Your task to perform on an android device: Empty the shopping cart on newegg.com. Add "bose soundsport free" to the cart on newegg.com, then select checkout. Image 0: 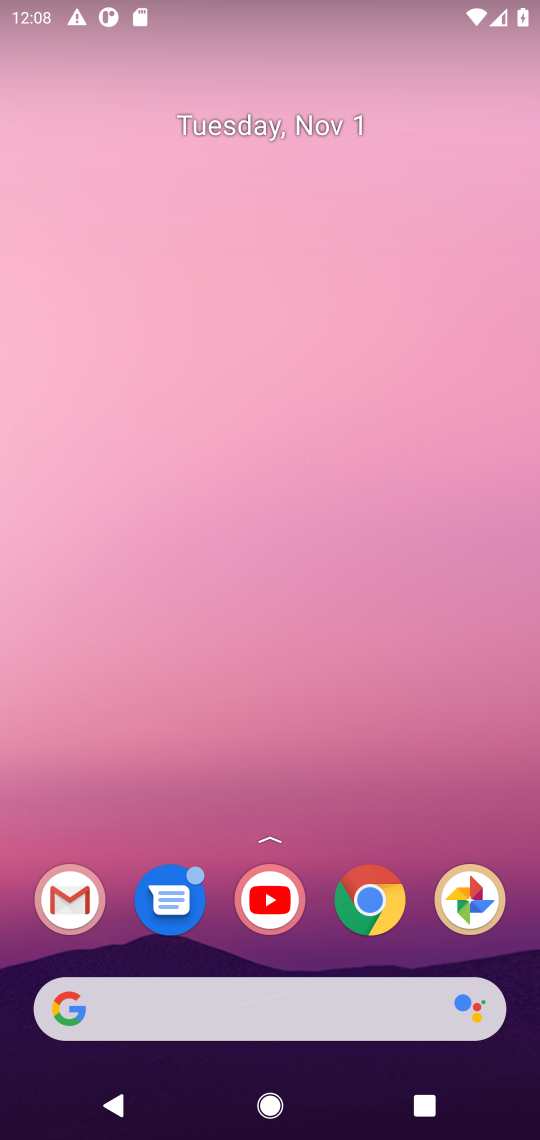
Step 0: click (393, 923)
Your task to perform on an android device: Empty the shopping cart on newegg.com. Add "bose soundsport free" to the cart on newegg.com, then select checkout. Image 1: 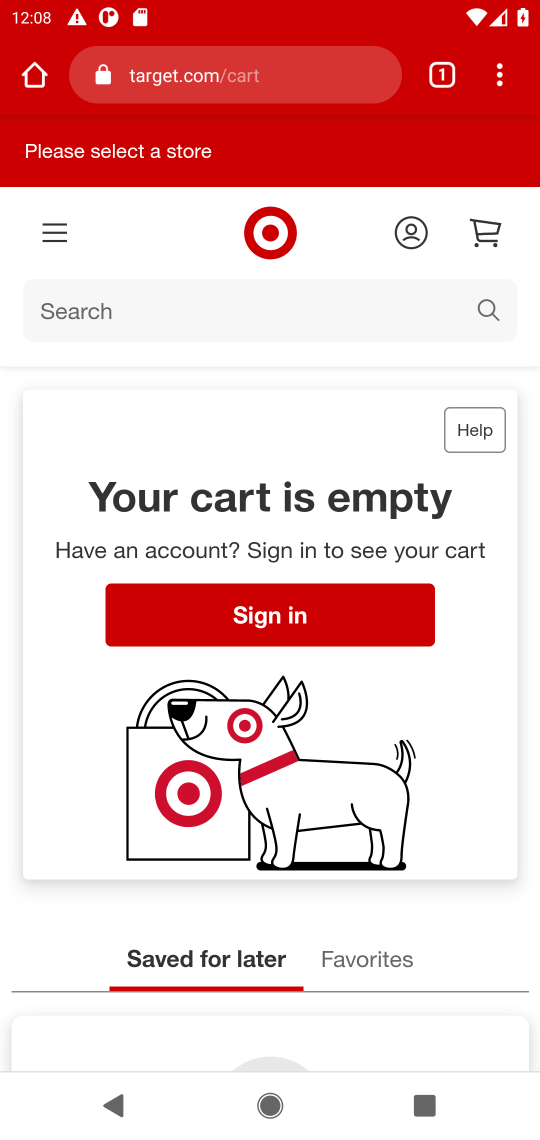
Step 1: type "newegg.com"
Your task to perform on an android device: Empty the shopping cart on newegg.com. Add "bose soundsport free" to the cart on newegg.com, then select checkout. Image 2: 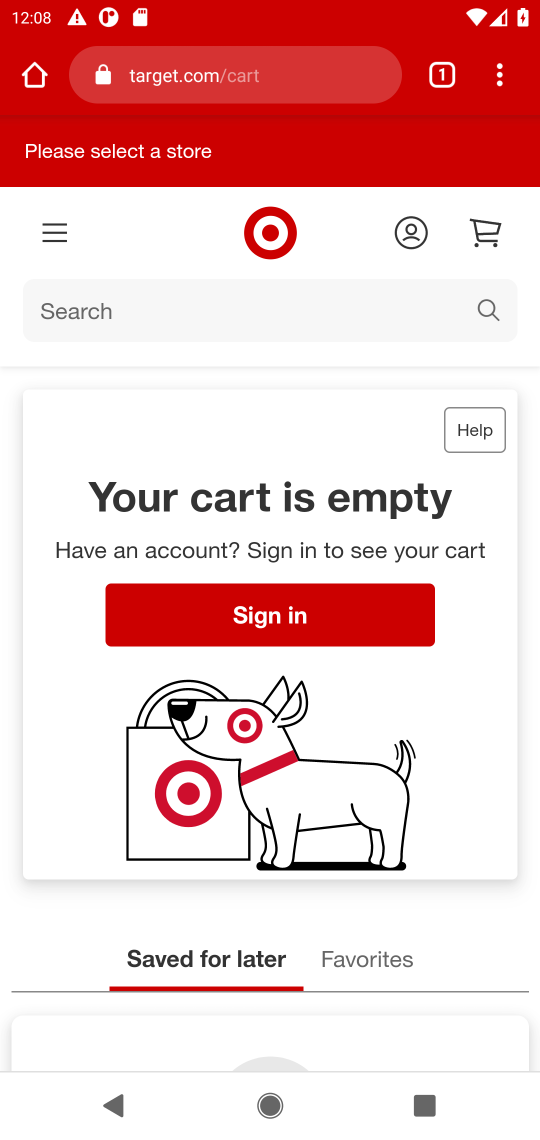
Step 2: type "newegg.com"
Your task to perform on an android device: Empty the shopping cart on newegg.com. Add "bose soundsport free" to the cart on newegg.com, then select checkout. Image 3: 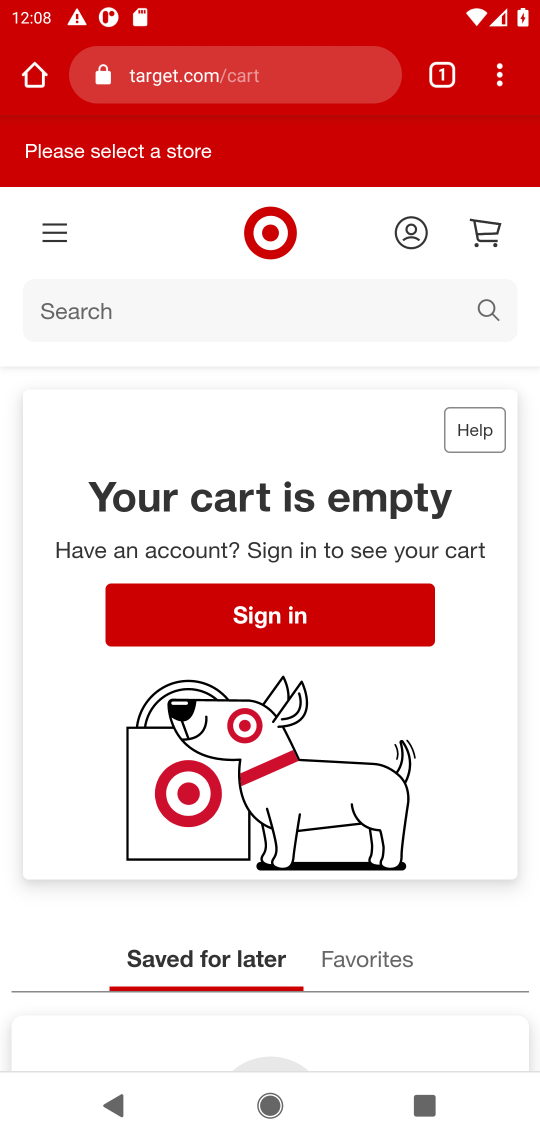
Step 3: click (256, 76)
Your task to perform on an android device: Empty the shopping cart on newegg.com. Add "bose soundsport free" to the cart on newegg.com, then select checkout. Image 4: 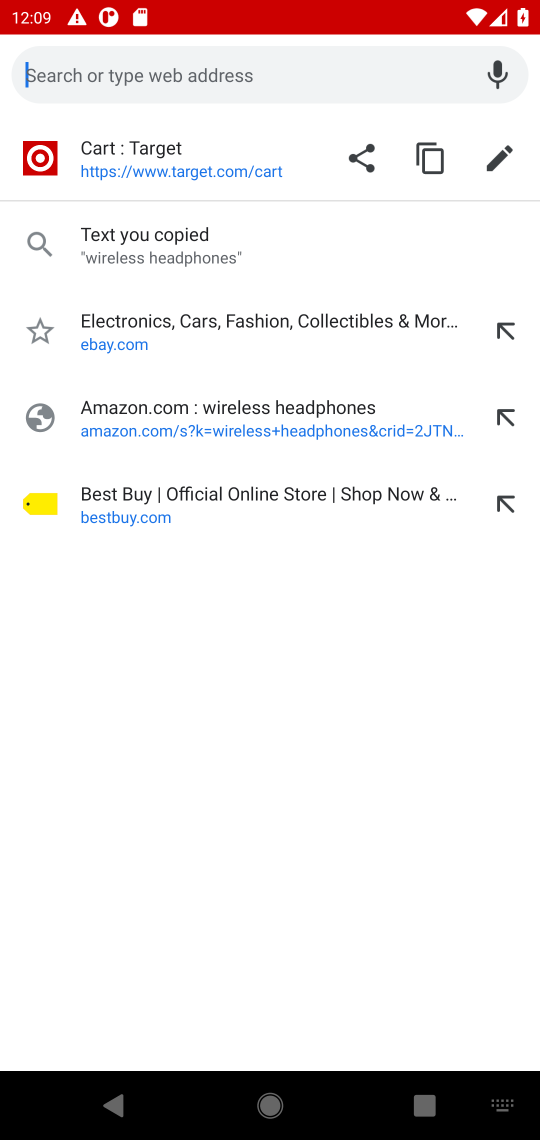
Step 4: type "newegg.com"
Your task to perform on an android device: Empty the shopping cart on newegg.com. Add "bose soundsport free" to the cart on newegg.com, then select checkout. Image 5: 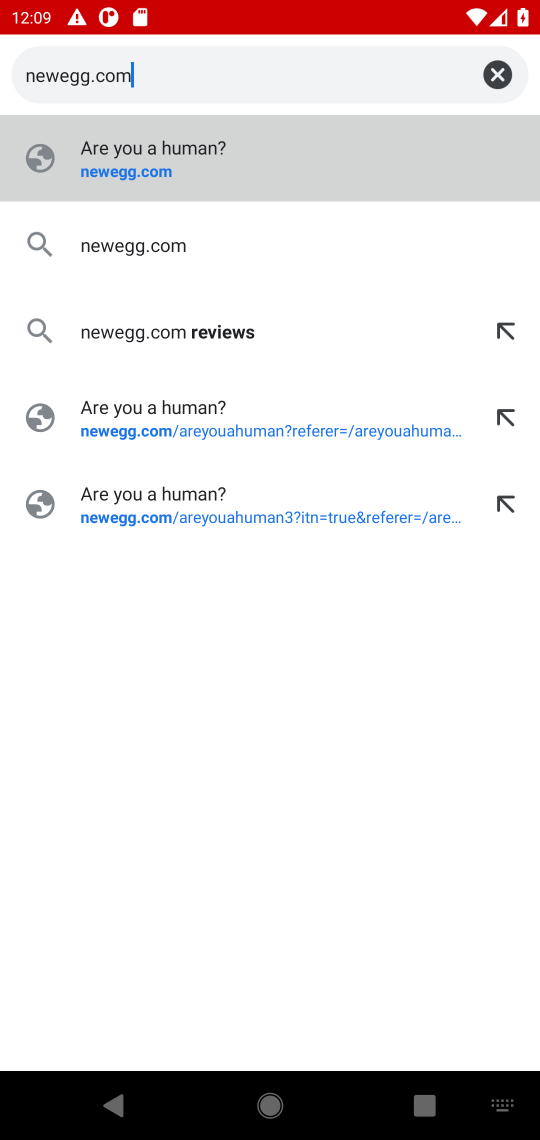
Step 5: press enter
Your task to perform on an android device: Empty the shopping cart on newegg.com. Add "bose soundsport free" to the cart on newegg.com, then select checkout. Image 6: 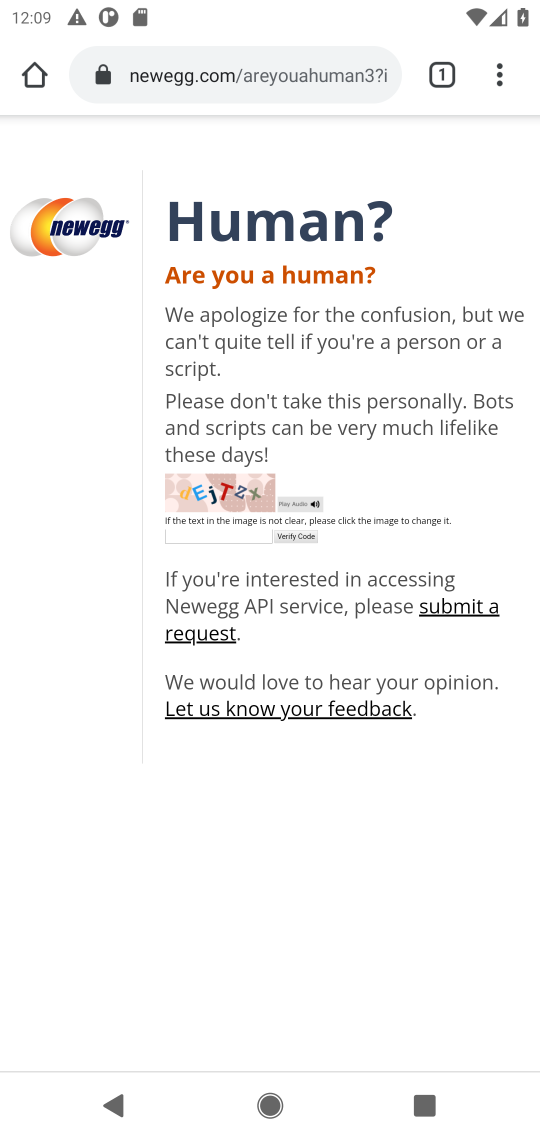
Step 6: click (225, 542)
Your task to perform on an android device: Empty the shopping cart on newegg.com. Add "bose soundsport free" to the cart on newegg.com, then select checkout. Image 7: 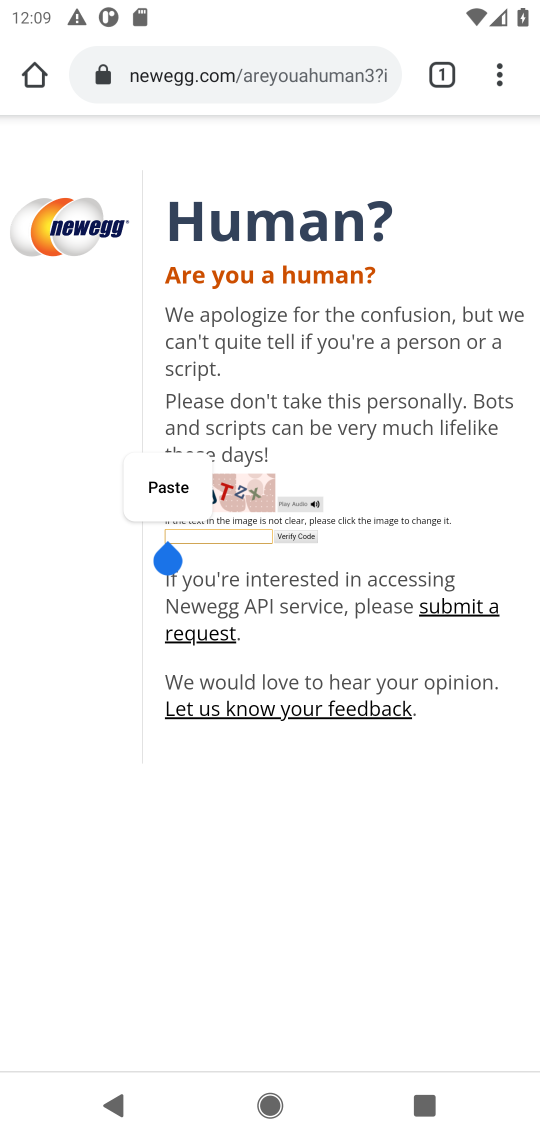
Step 7: click (207, 542)
Your task to perform on an android device: Empty the shopping cart on newegg.com. Add "bose soundsport free" to the cart on newegg.com, then select checkout. Image 8: 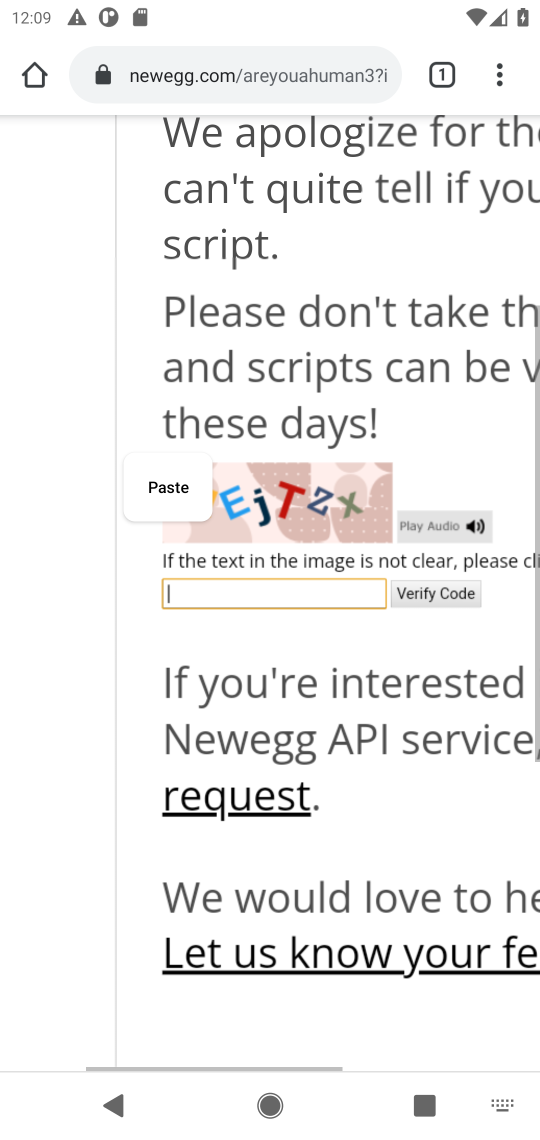
Step 8: click (207, 539)
Your task to perform on an android device: Empty the shopping cart on newegg.com. Add "bose soundsport free" to the cart on newegg.com, then select checkout. Image 9: 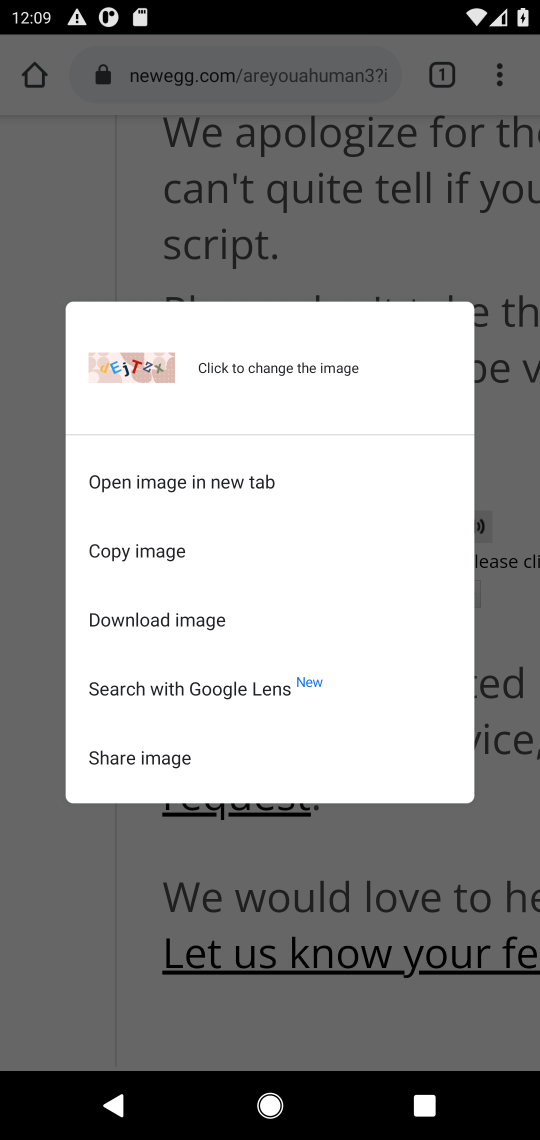
Step 9: click (515, 588)
Your task to perform on an android device: Empty the shopping cart on newegg.com. Add "bose soundsport free" to the cart on newegg.com, then select checkout. Image 10: 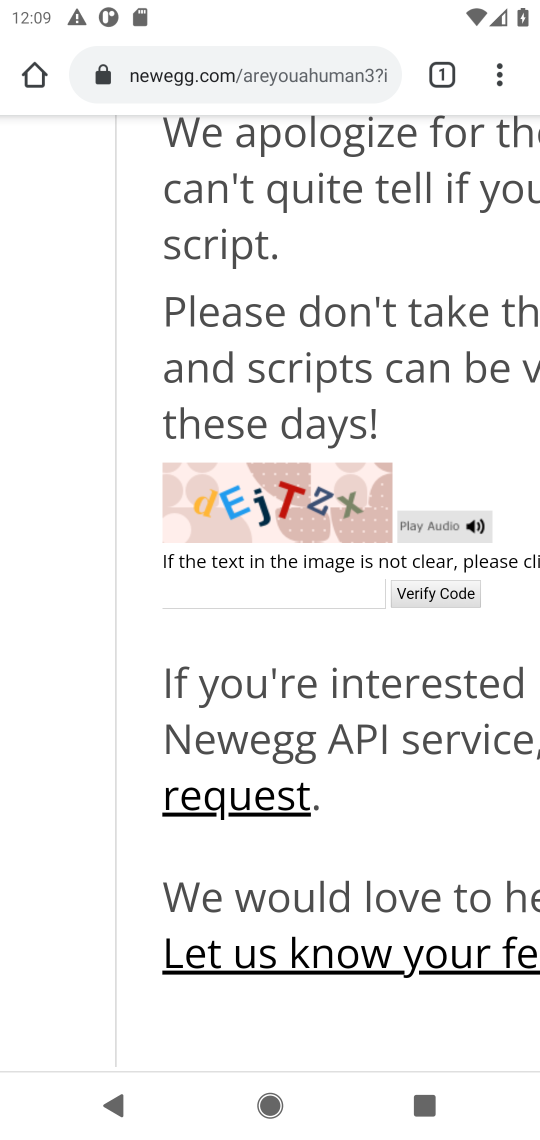
Step 10: click (248, 598)
Your task to perform on an android device: Empty the shopping cart on newegg.com. Add "bose soundsport free" to the cart on newegg.com, then select checkout. Image 11: 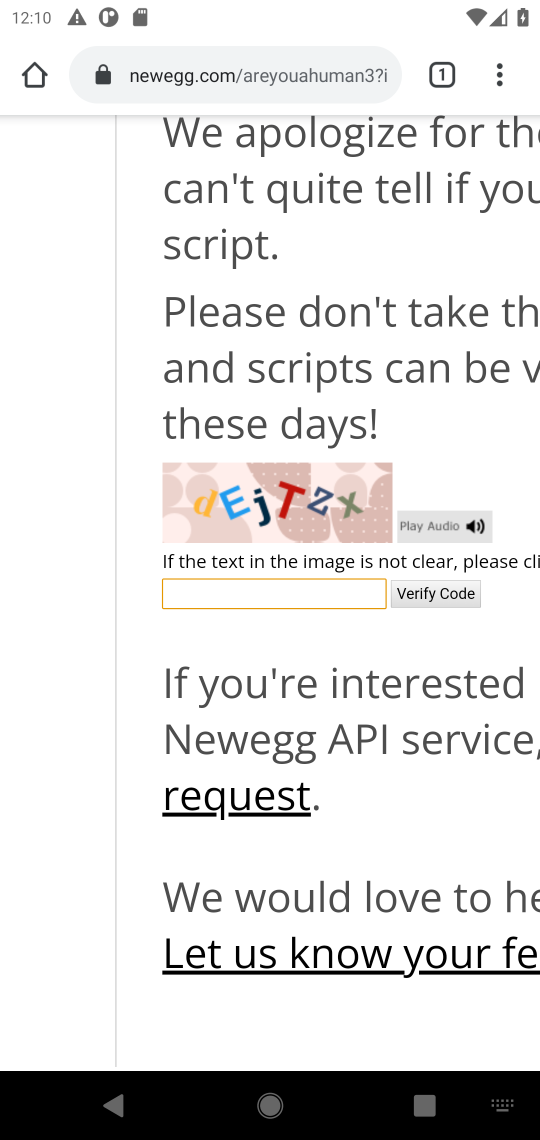
Step 11: type "dEjTZx"
Your task to perform on an android device: Empty the shopping cart on newegg.com. Add "bose soundsport free" to the cart on newegg.com, then select checkout. Image 12: 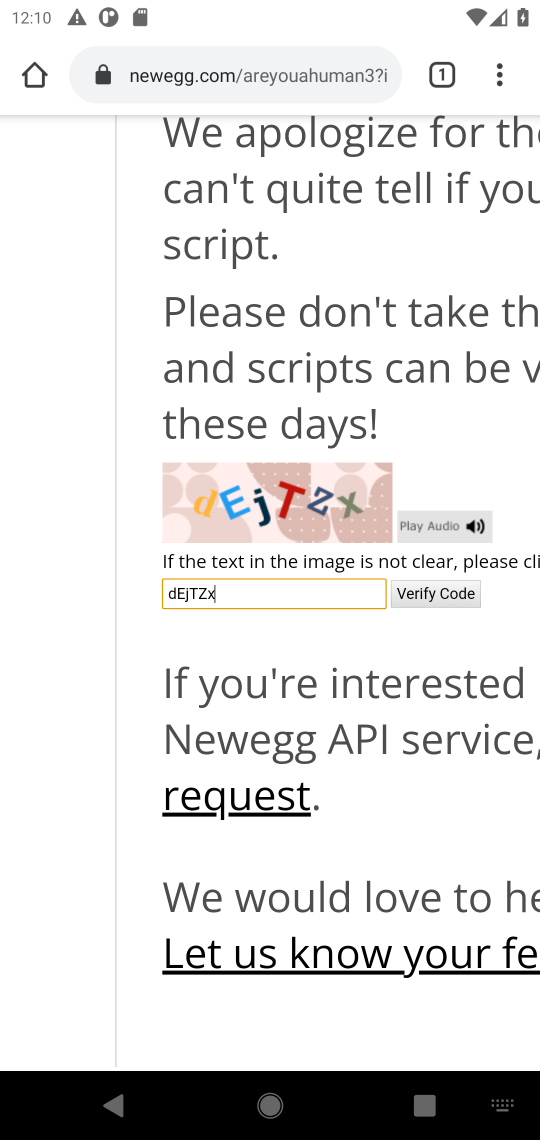
Step 12: press enter
Your task to perform on an android device: Empty the shopping cart on newegg.com. Add "bose soundsport free" to the cart on newegg.com, then select checkout. Image 13: 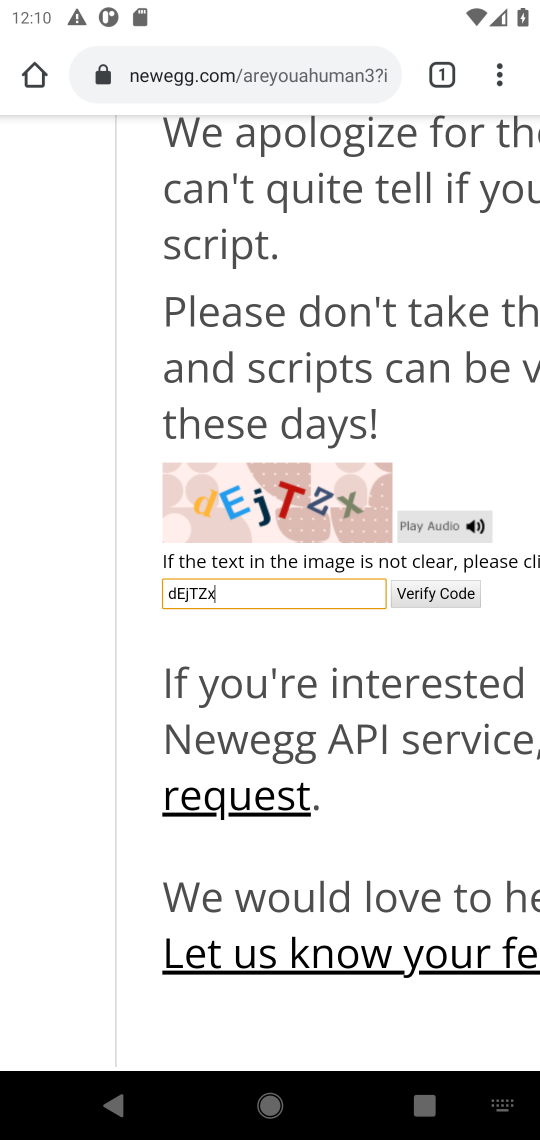
Step 13: click (431, 596)
Your task to perform on an android device: Empty the shopping cart on newegg.com. Add "bose soundsport free" to the cart on newegg.com, then select checkout. Image 14: 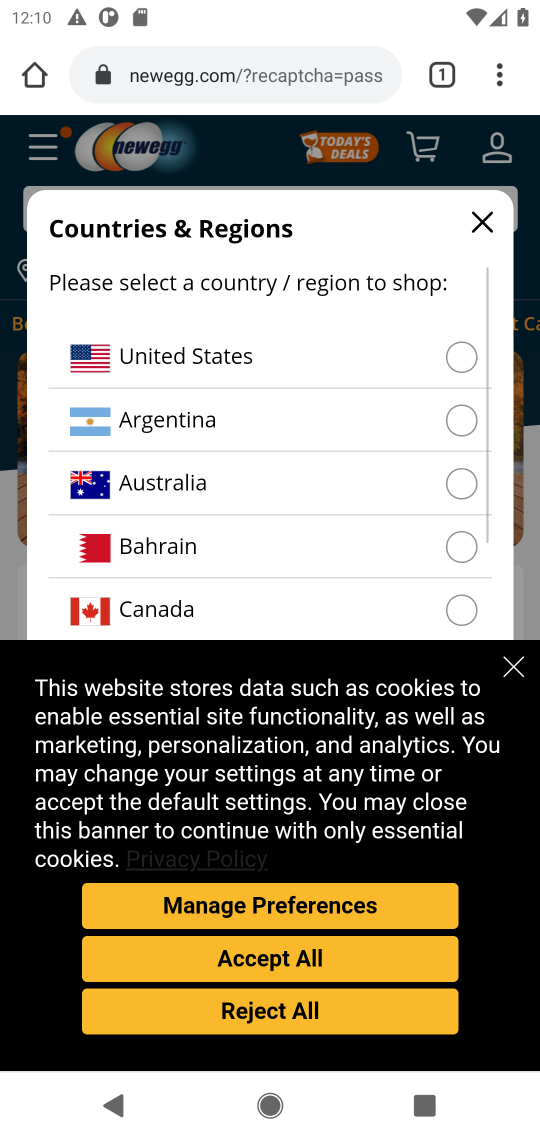
Step 14: click (503, 147)
Your task to perform on an android device: Empty the shopping cart on newegg.com. Add "bose soundsport free" to the cart on newegg.com, then select checkout. Image 15: 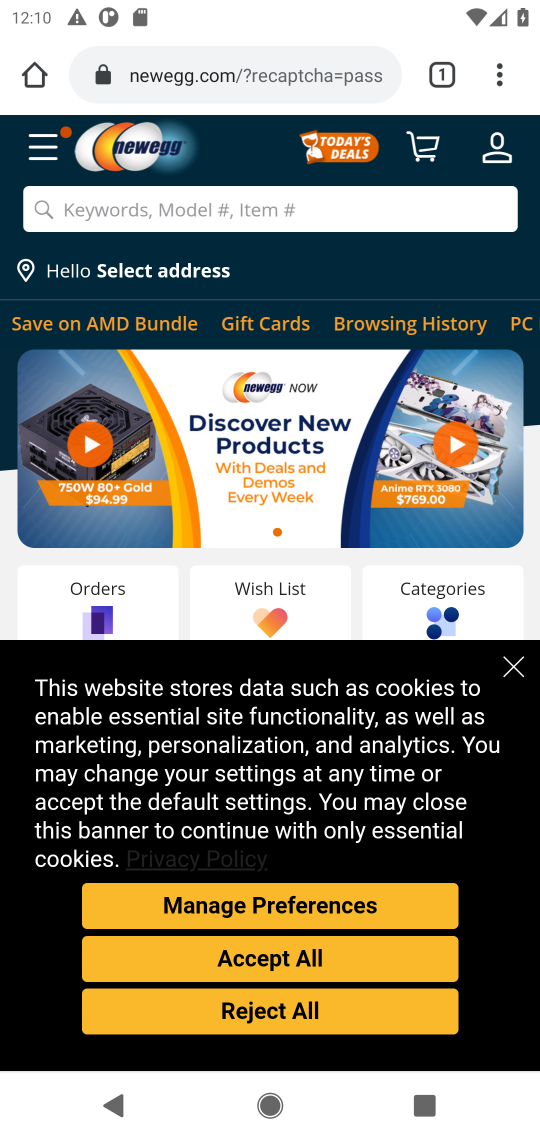
Step 15: click (501, 165)
Your task to perform on an android device: Empty the shopping cart on newegg.com. Add "bose soundsport free" to the cart on newegg.com, then select checkout. Image 16: 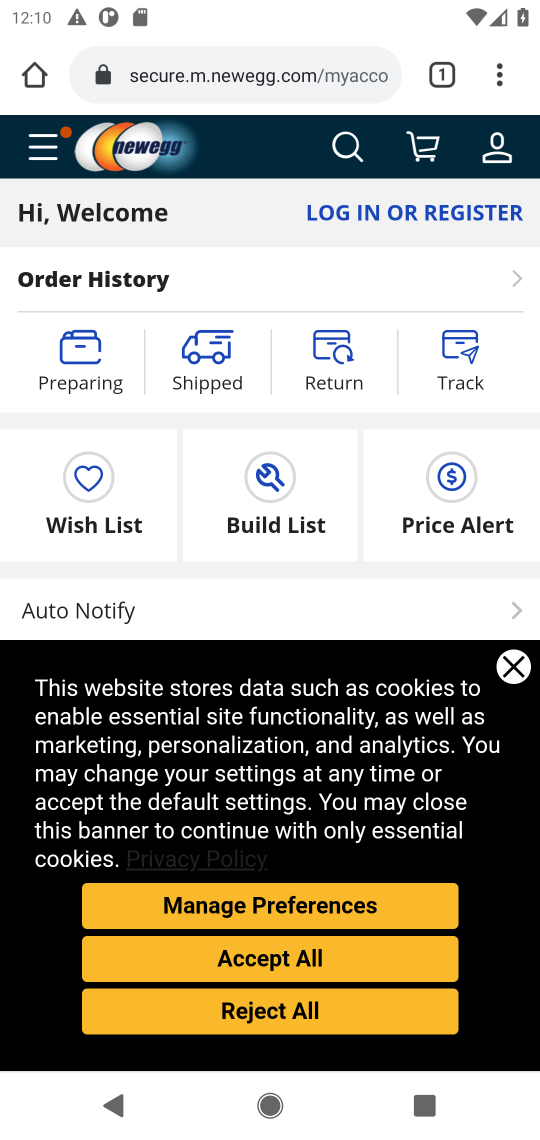
Step 16: click (22, 144)
Your task to perform on an android device: Empty the shopping cart on newegg.com. Add "bose soundsport free" to the cart on newegg.com, then select checkout. Image 17: 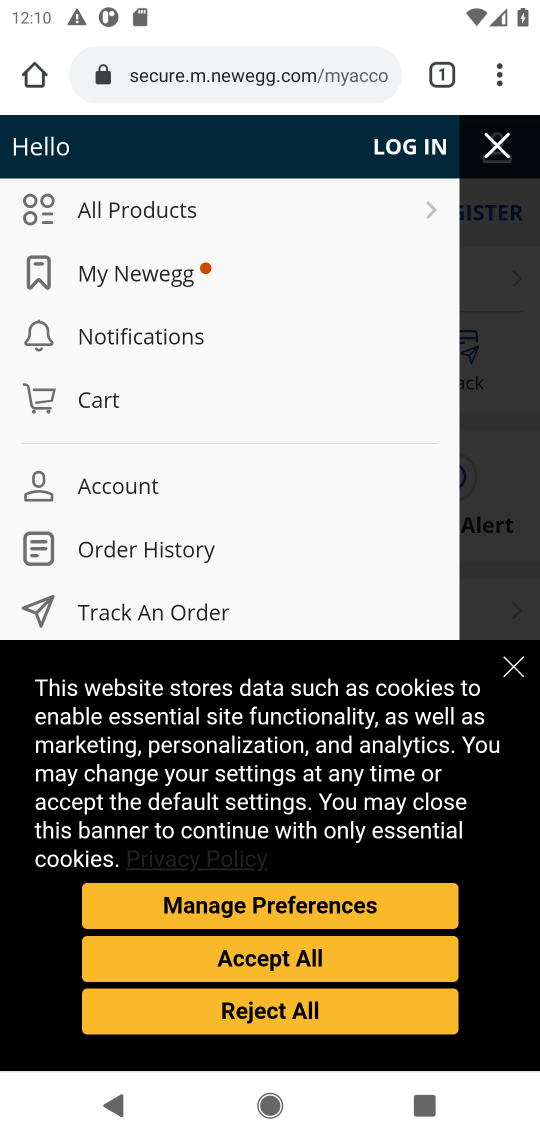
Step 17: click (75, 418)
Your task to perform on an android device: Empty the shopping cart on newegg.com. Add "bose soundsport free" to the cart on newegg.com, then select checkout. Image 18: 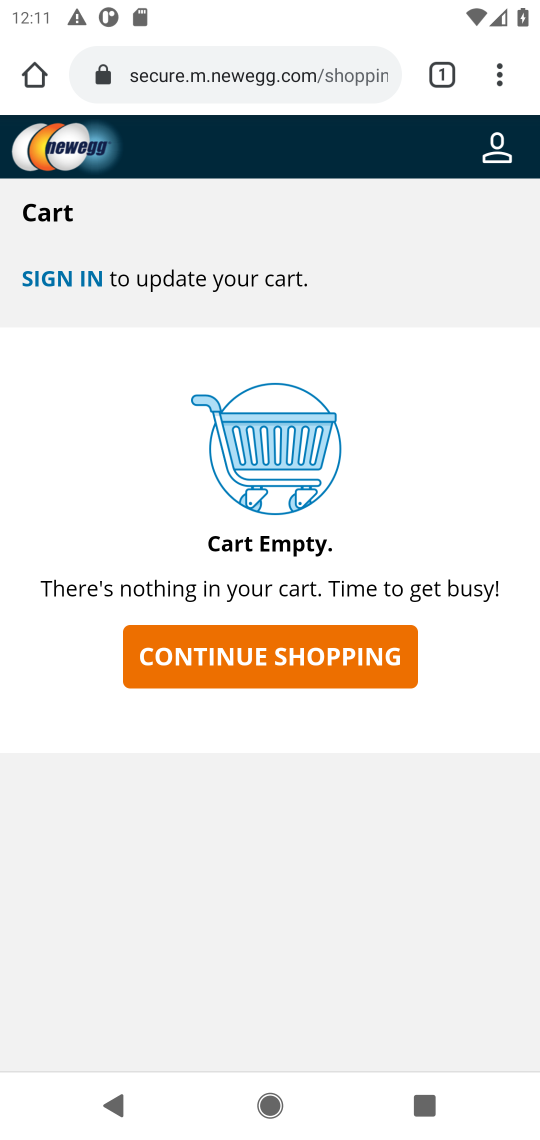
Step 18: click (81, 158)
Your task to perform on an android device: Empty the shopping cart on newegg.com. Add "bose soundsport free" to the cart on newegg.com, then select checkout. Image 19: 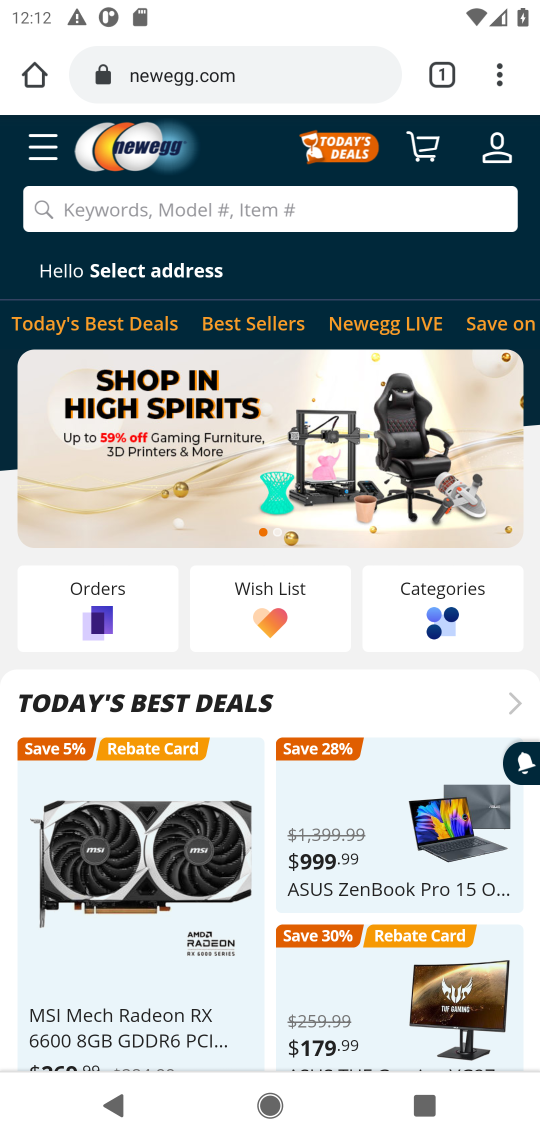
Step 19: click (306, 214)
Your task to perform on an android device: Empty the shopping cart on newegg.com. Add "bose soundsport free" to the cart on newegg.com, then select checkout. Image 20: 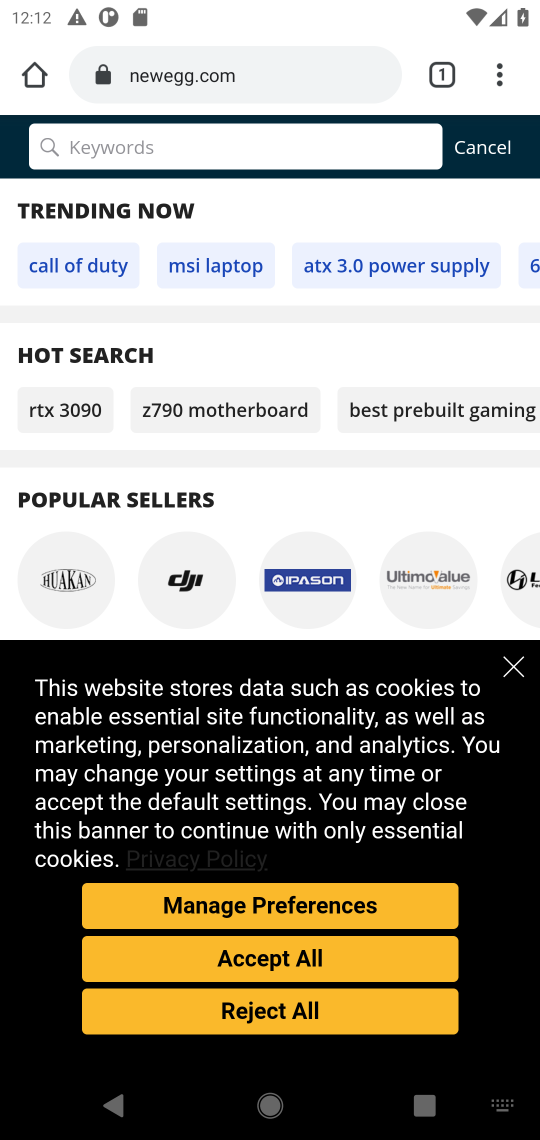
Step 20: click (330, 967)
Your task to perform on an android device: Empty the shopping cart on newegg.com. Add "bose soundsport free" to the cart on newegg.com, then select checkout. Image 21: 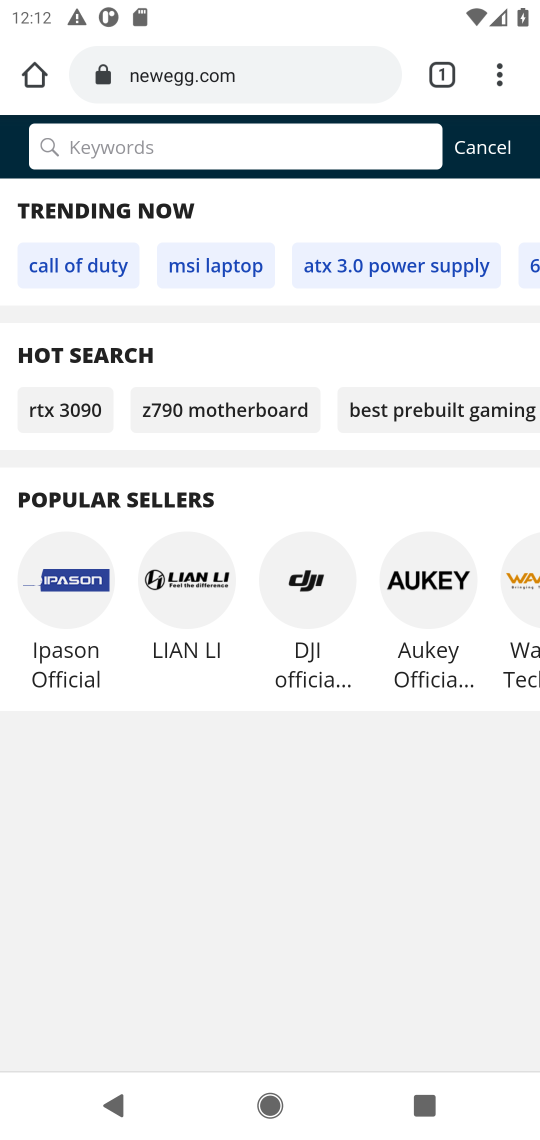
Step 21: click (179, 149)
Your task to perform on an android device: Empty the shopping cart on newegg.com. Add "bose soundsport free" to the cart on newegg.com, then select checkout. Image 22: 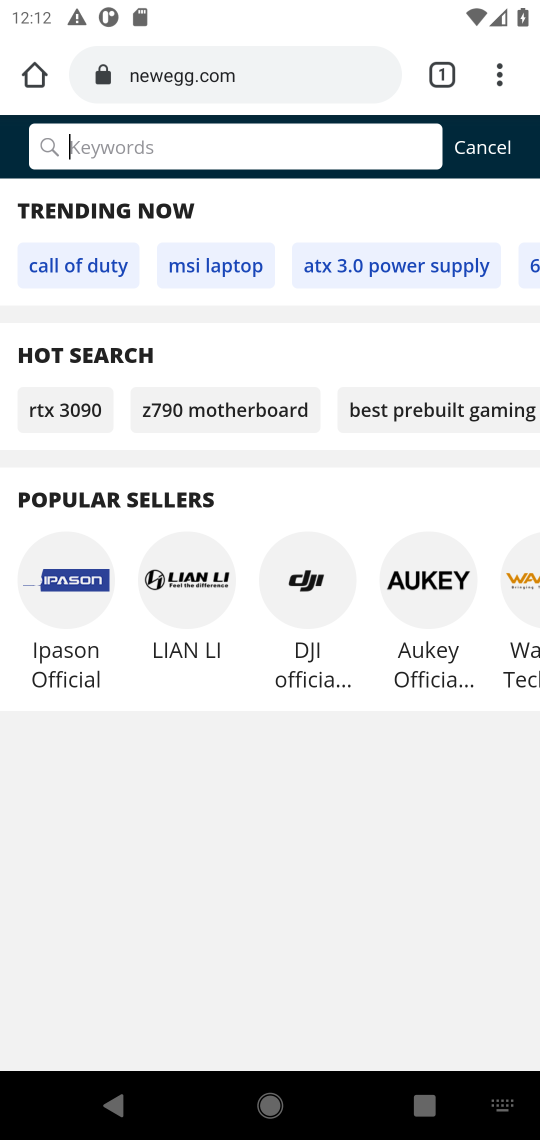
Step 22: type "bose soundsport free"
Your task to perform on an android device: Empty the shopping cart on newegg.com. Add "bose soundsport free" to the cart on newegg.com, then select checkout. Image 23: 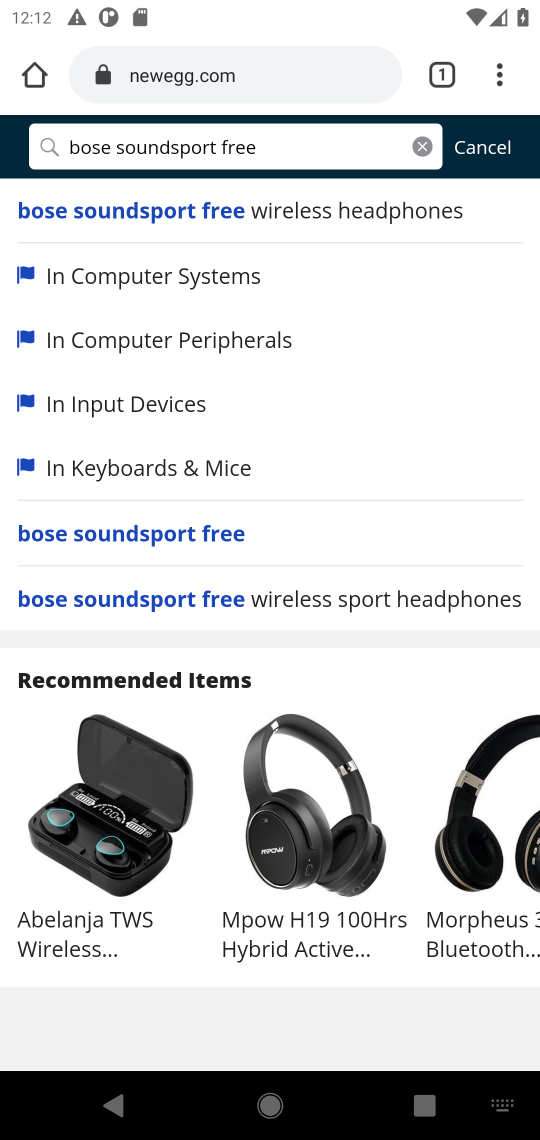
Step 23: press enter
Your task to perform on an android device: Empty the shopping cart on newegg.com. Add "bose soundsport free" to the cart on newegg.com, then select checkout. Image 24: 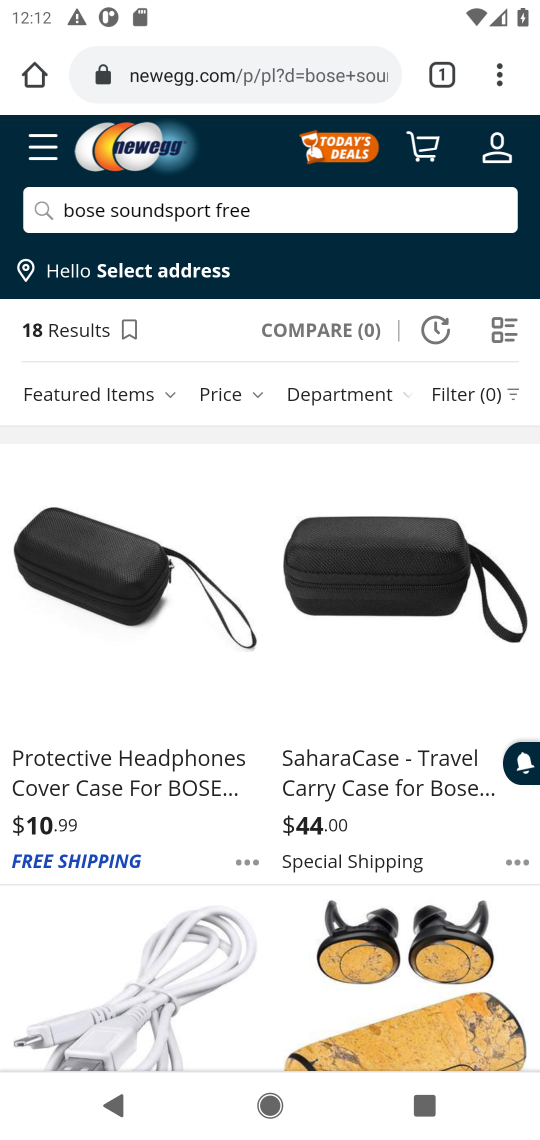
Step 24: drag from (197, 850) to (256, 664)
Your task to perform on an android device: Empty the shopping cart on newegg.com. Add "bose soundsport free" to the cart on newegg.com, then select checkout. Image 25: 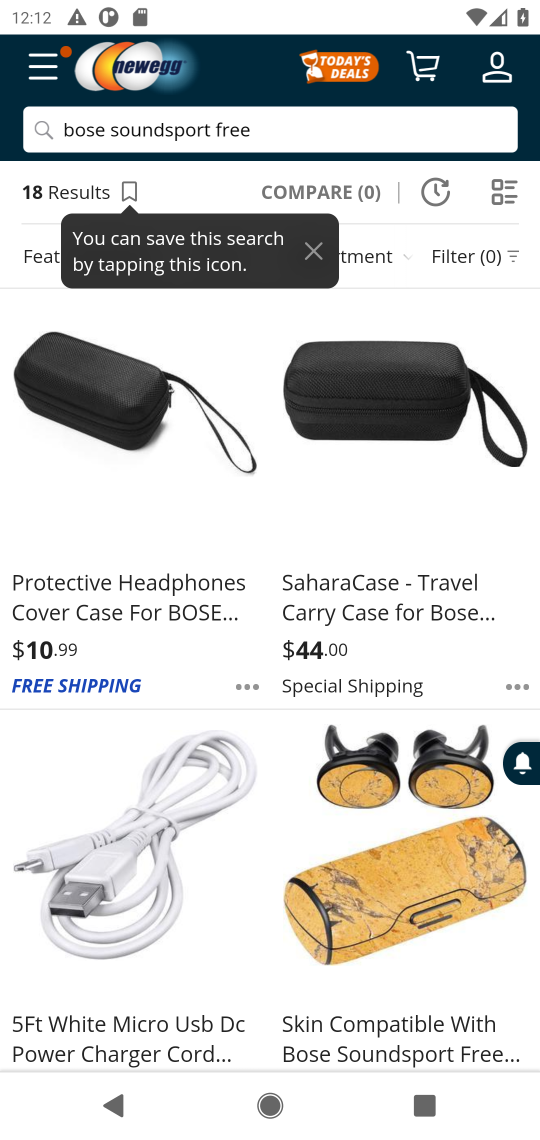
Step 25: drag from (337, 677) to (362, 480)
Your task to perform on an android device: Empty the shopping cart on newegg.com. Add "bose soundsport free" to the cart on newegg.com, then select checkout. Image 26: 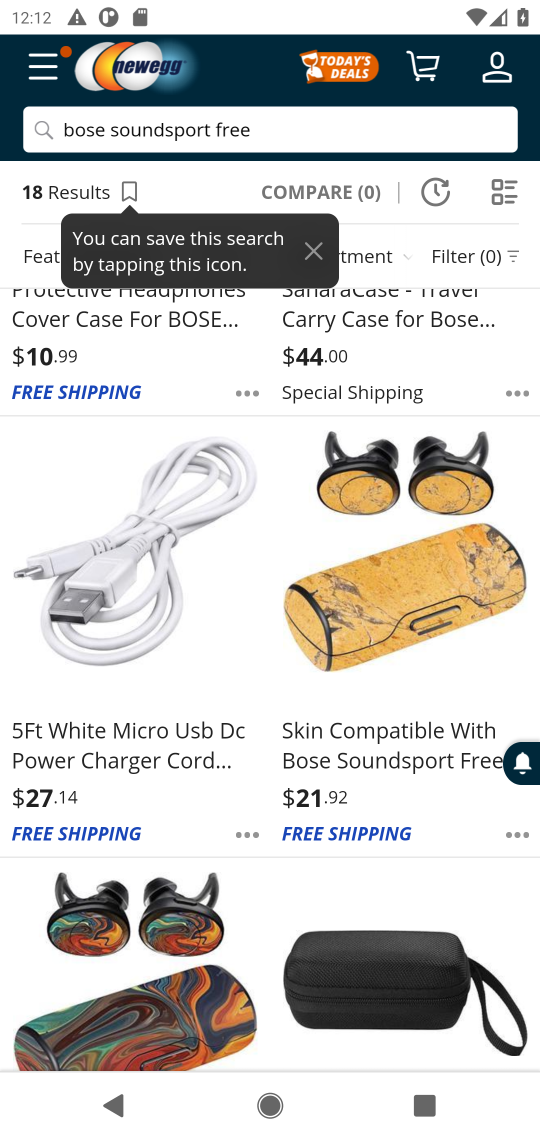
Step 26: drag from (373, 794) to (394, 528)
Your task to perform on an android device: Empty the shopping cart on newegg.com. Add "bose soundsport free" to the cart on newegg.com, then select checkout. Image 27: 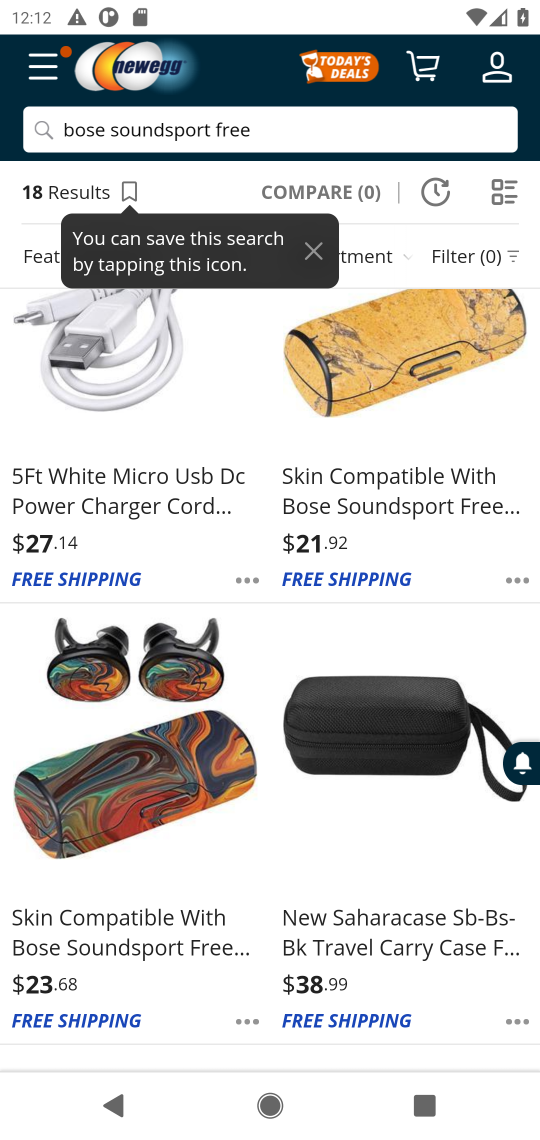
Step 27: drag from (395, 863) to (426, 562)
Your task to perform on an android device: Empty the shopping cart on newegg.com. Add "bose soundsport free" to the cart on newegg.com, then select checkout. Image 28: 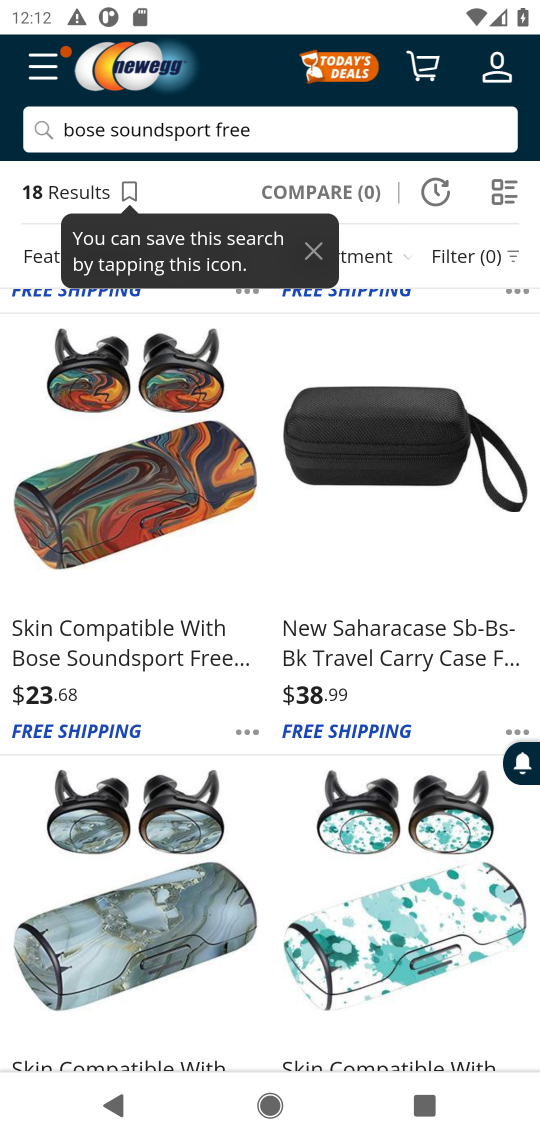
Step 28: drag from (406, 925) to (456, 396)
Your task to perform on an android device: Empty the shopping cart on newegg.com. Add "bose soundsport free" to the cart on newegg.com, then select checkout. Image 29: 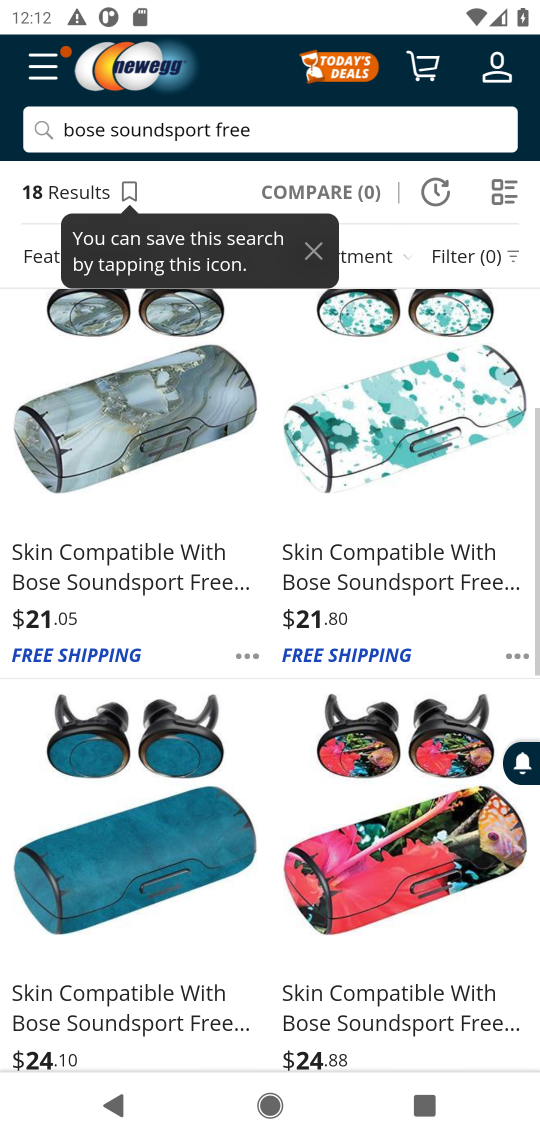
Step 29: drag from (448, 941) to (478, 504)
Your task to perform on an android device: Empty the shopping cart on newegg.com. Add "bose soundsport free" to the cart on newegg.com, then select checkout. Image 30: 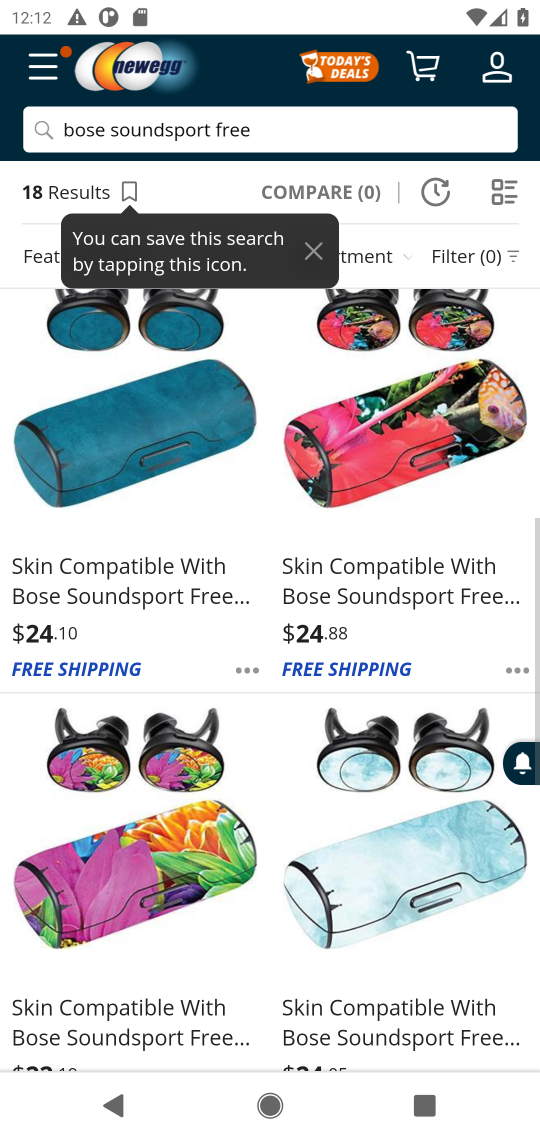
Step 30: drag from (413, 795) to (477, 435)
Your task to perform on an android device: Empty the shopping cart on newegg.com. Add "bose soundsport free" to the cart on newegg.com, then select checkout. Image 31: 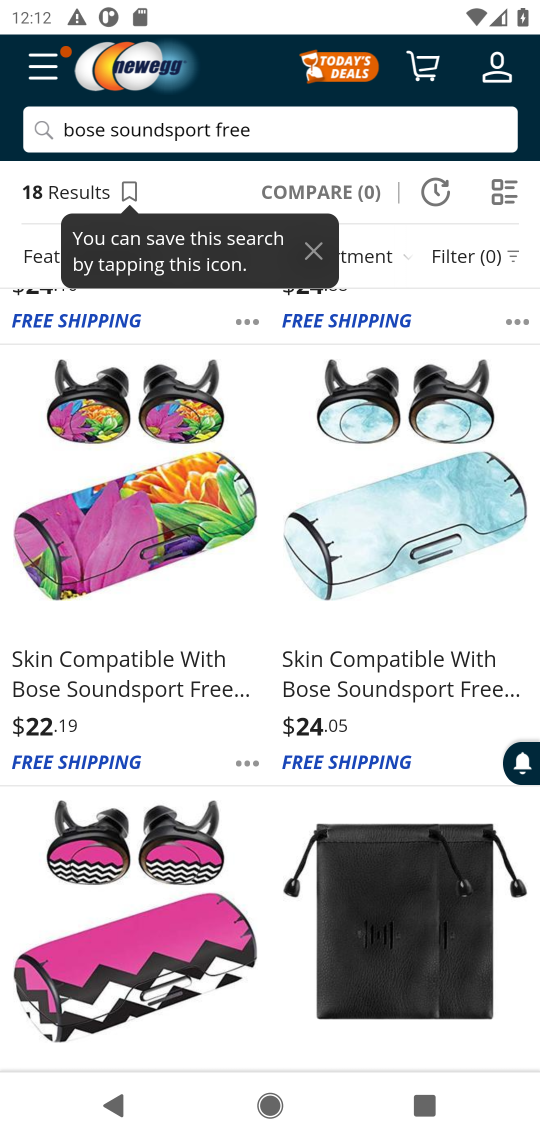
Step 31: drag from (448, 669) to (451, 433)
Your task to perform on an android device: Empty the shopping cart on newegg.com. Add "bose soundsport free" to the cart on newegg.com, then select checkout. Image 32: 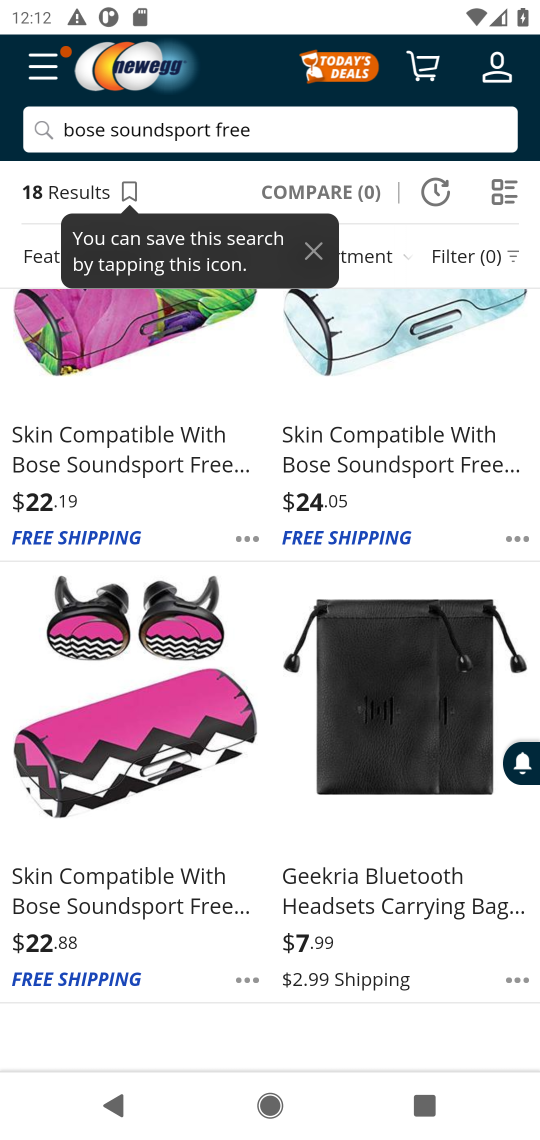
Step 32: drag from (463, 963) to (464, 380)
Your task to perform on an android device: Empty the shopping cart on newegg.com. Add "bose soundsport free" to the cart on newegg.com, then select checkout. Image 33: 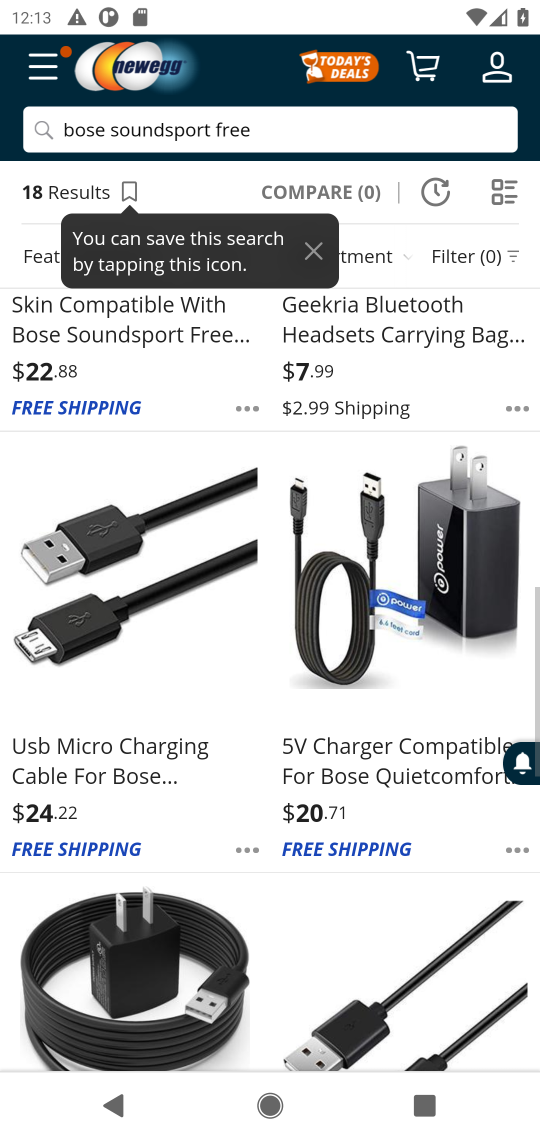
Step 33: drag from (393, 957) to (418, 462)
Your task to perform on an android device: Empty the shopping cart on newegg.com. Add "bose soundsport free" to the cart on newegg.com, then select checkout. Image 34: 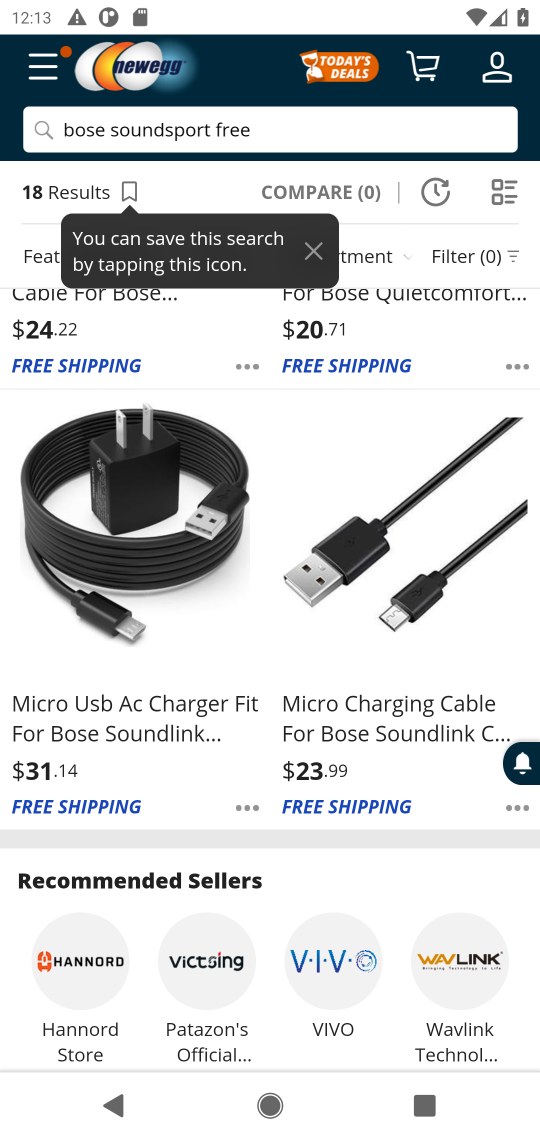
Step 34: drag from (412, 815) to (402, 454)
Your task to perform on an android device: Empty the shopping cart on newegg.com. Add "bose soundsport free" to the cart on newegg.com, then select checkout. Image 35: 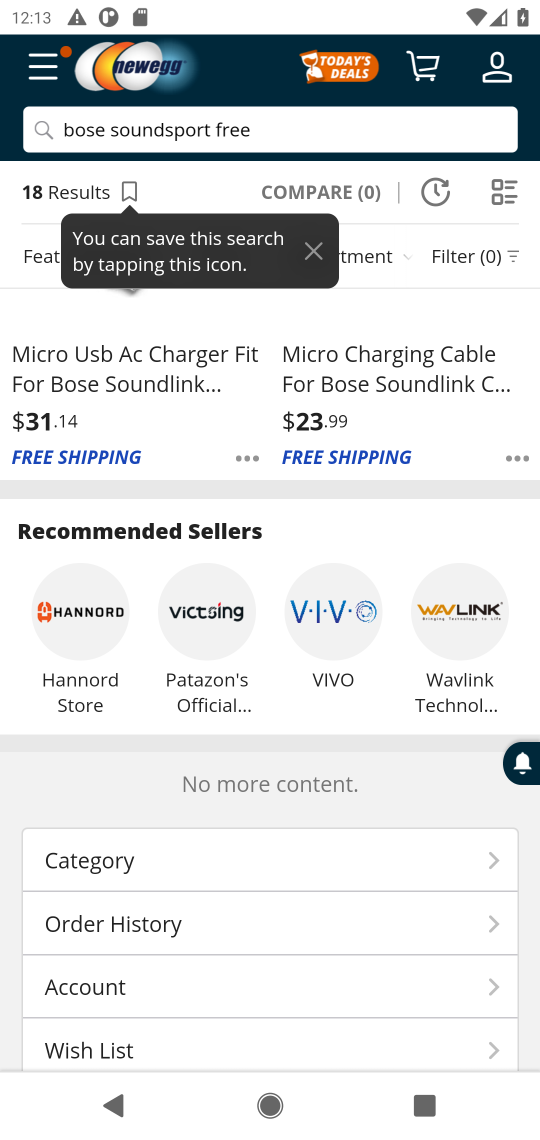
Step 35: drag from (415, 579) to (419, 363)
Your task to perform on an android device: Empty the shopping cart on newegg.com. Add "bose soundsport free" to the cart on newegg.com, then select checkout. Image 36: 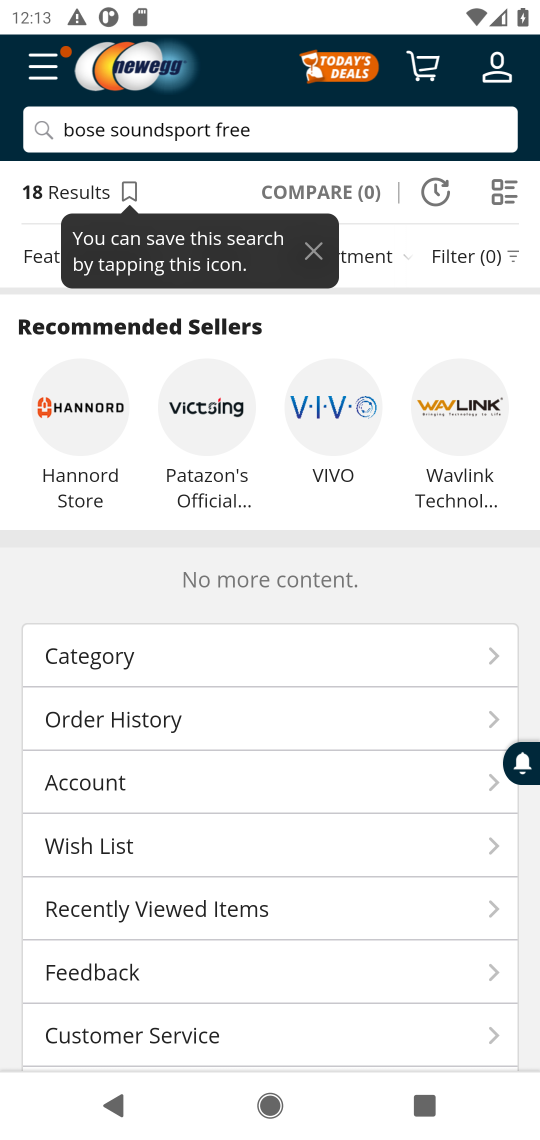
Step 36: drag from (413, 366) to (434, 815)
Your task to perform on an android device: Empty the shopping cart on newegg.com. Add "bose soundsport free" to the cart on newegg.com, then select checkout. Image 37: 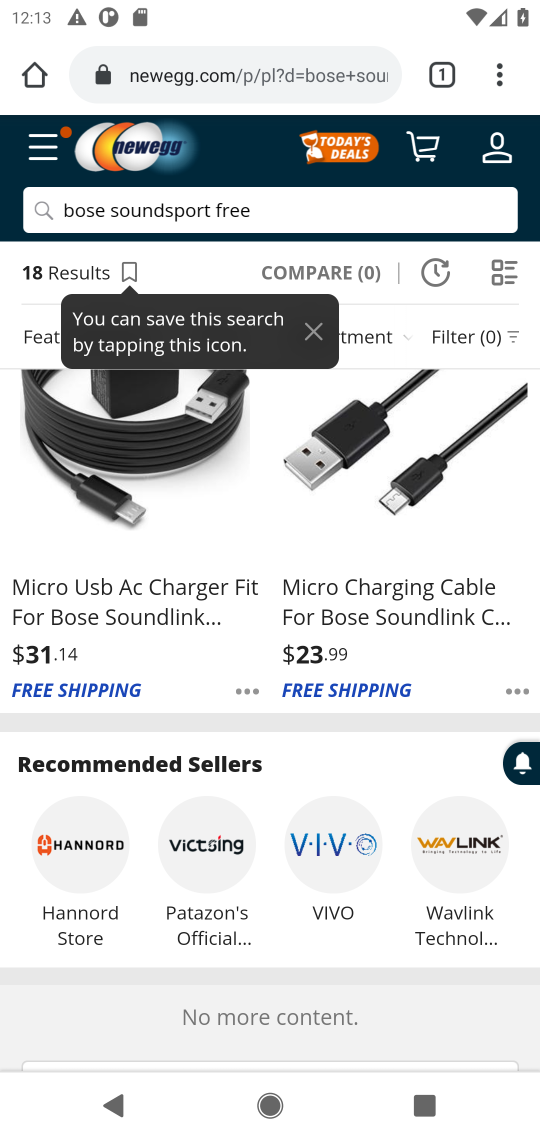
Step 37: click (308, 210)
Your task to perform on an android device: Empty the shopping cart on newegg.com. Add "bose soundsport free" to the cart on newegg.com, then select checkout. Image 38: 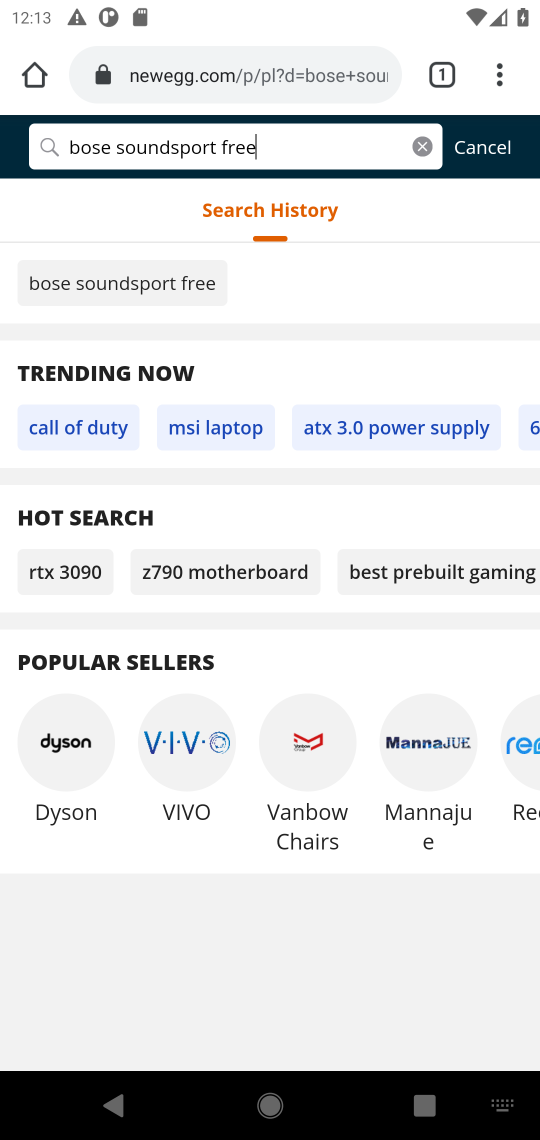
Step 38: click (89, 274)
Your task to perform on an android device: Empty the shopping cart on newegg.com. Add "bose soundsport free" to the cart on newegg.com, then select checkout. Image 39: 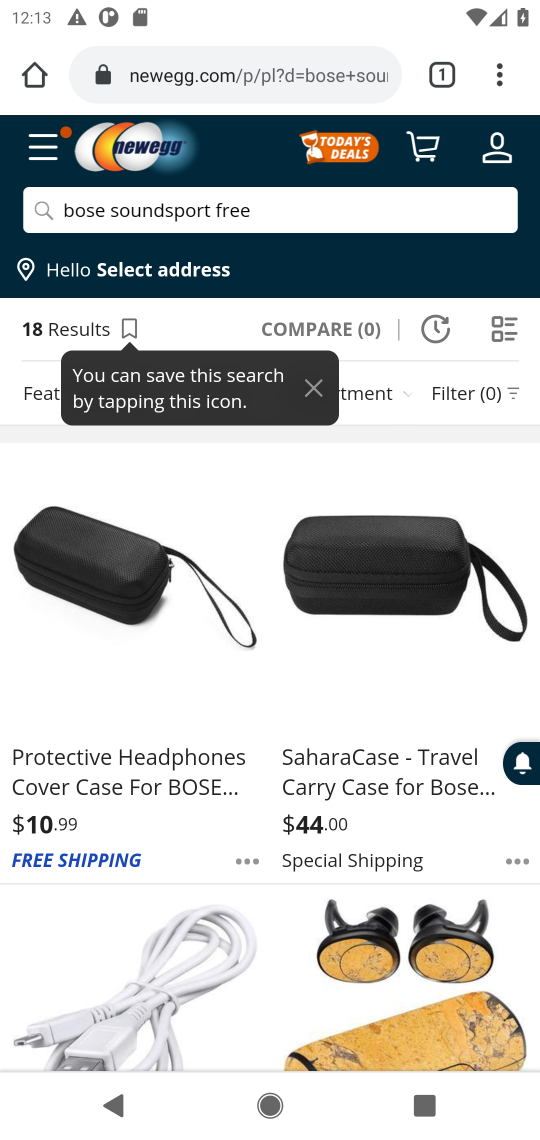
Step 39: click (103, 591)
Your task to perform on an android device: Empty the shopping cart on newegg.com. Add "bose soundsport free" to the cart on newegg.com, then select checkout. Image 40: 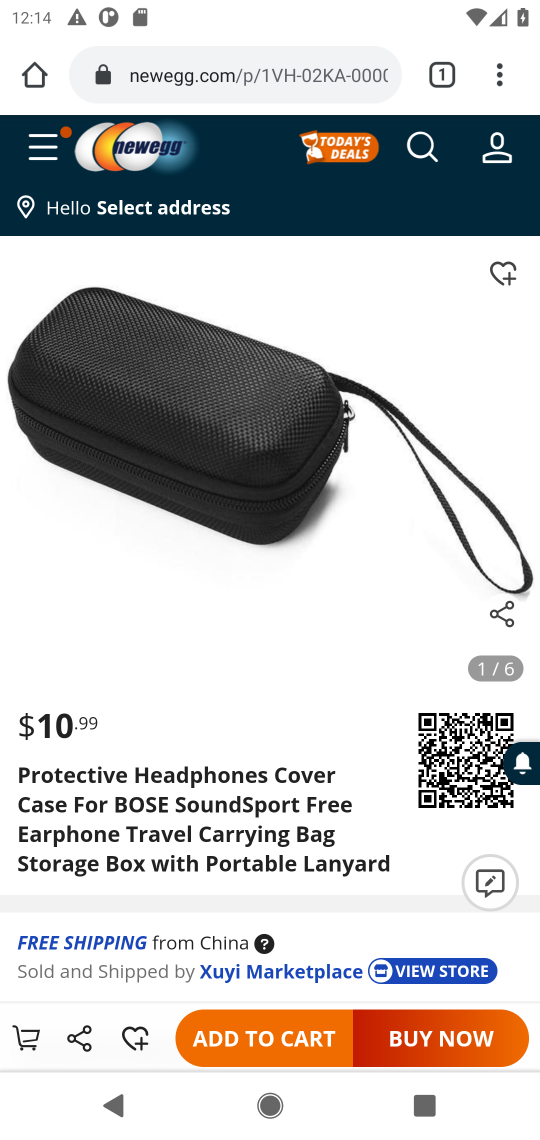
Step 40: click (235, 1032)
Your task to perform on an android device: Empty the shopping cart on newegg.com. Add "bose soundsport free" to the cart on newegg.com, then select checkout. Image 41: 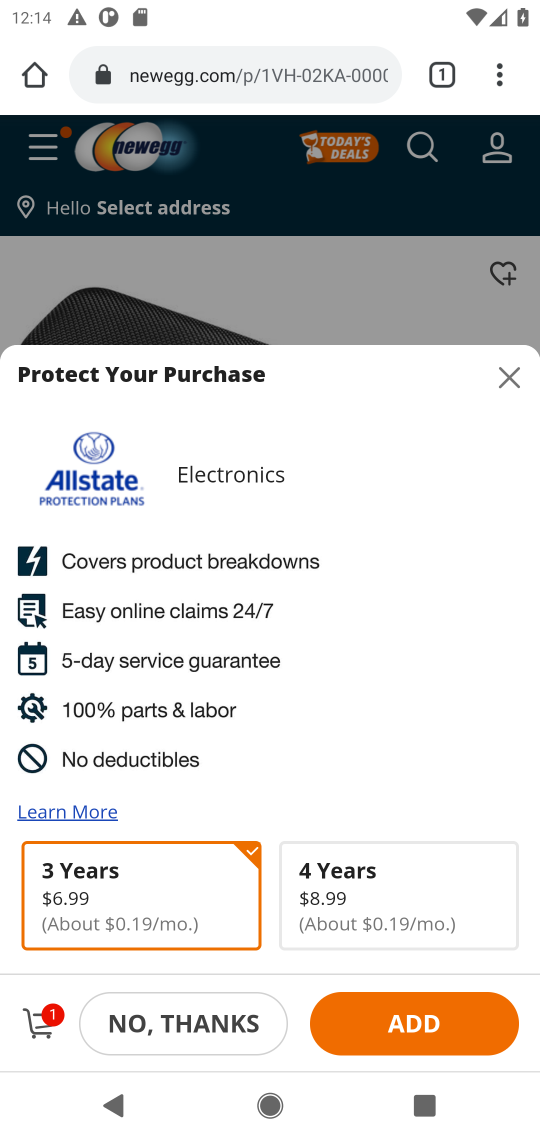
Step 41: click (518, 374)
Your task to perform on an android device: Empty the shopping cart on newegg.com. Add "bose soundsport free" to the cart on newegg.com, then select checkout. Image 42: 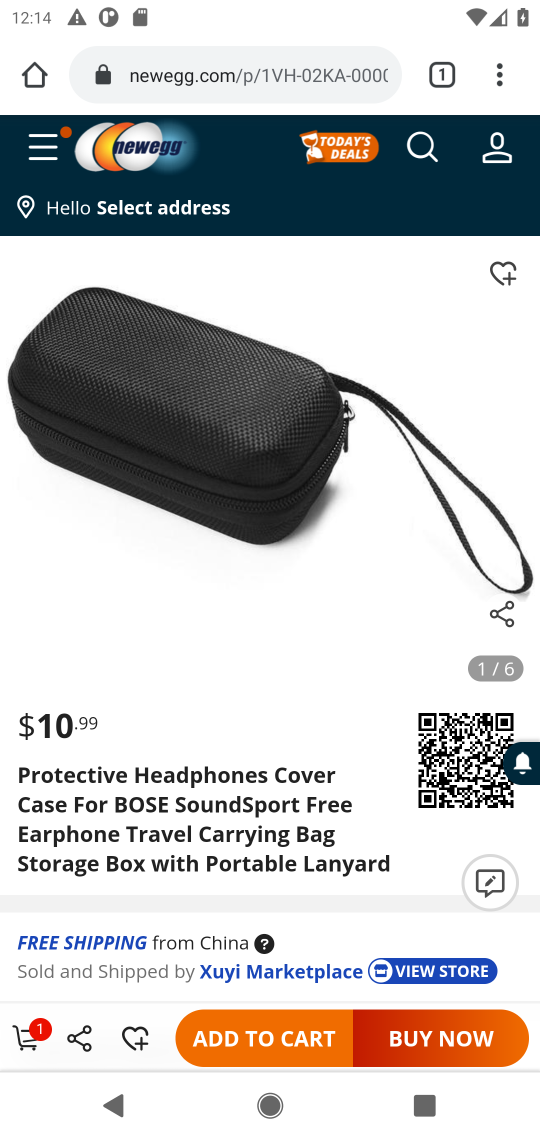
Step 42: drag from (362, 695) to (366, 276)
Your task to perform on an android device: Empty the shopping cart on newegg.com. Add "bose soundsport free" to the cart on newegg.com, then select checkout. Image 43: 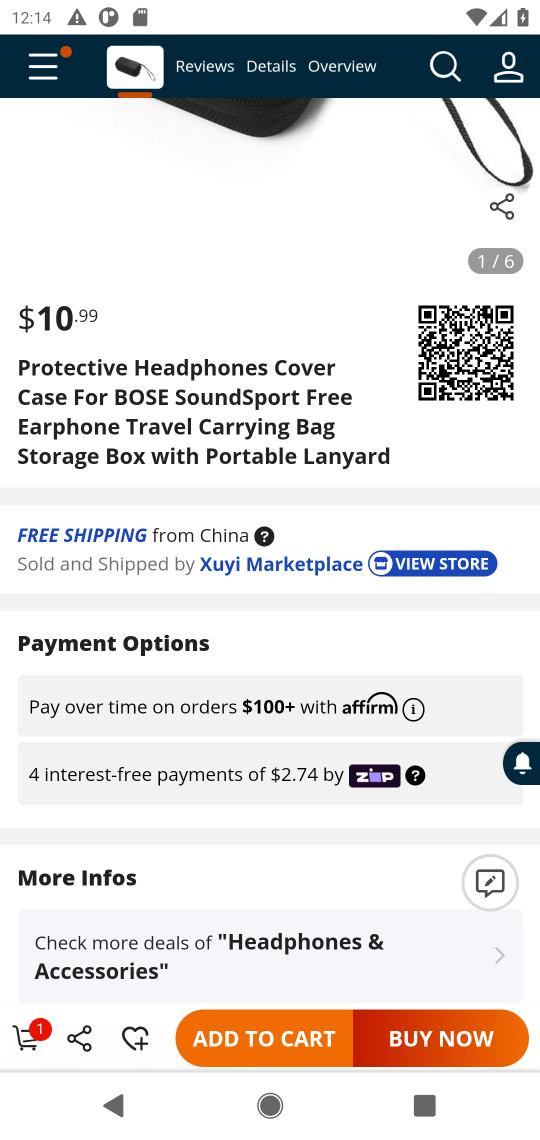
Step 43: drag from (344, 804) to (326, 385)
Your task to perform on an android device: Empty the shopping cart on newegg.com. Add "bose soundsport free" to the cart on newegg.com, then select checkout. Image 44: 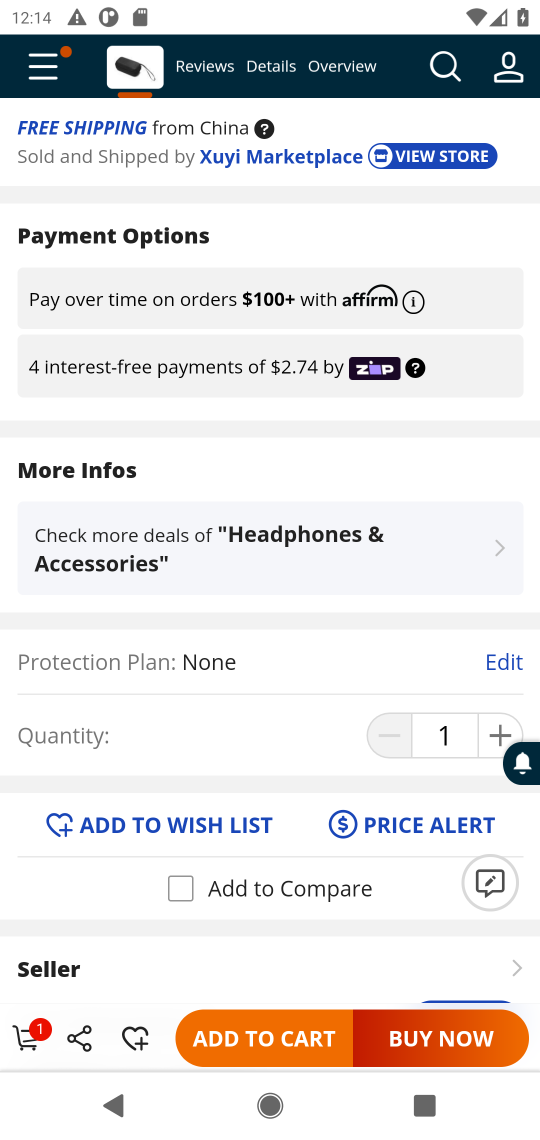
Step 44: drag from (312, 753) to (298, 371)
Your task to perform on an android device: Empty the shopping cart on newegg.com. Add "bose soundsport free" to the cart on newegg.com, then select checkout. Image 45: 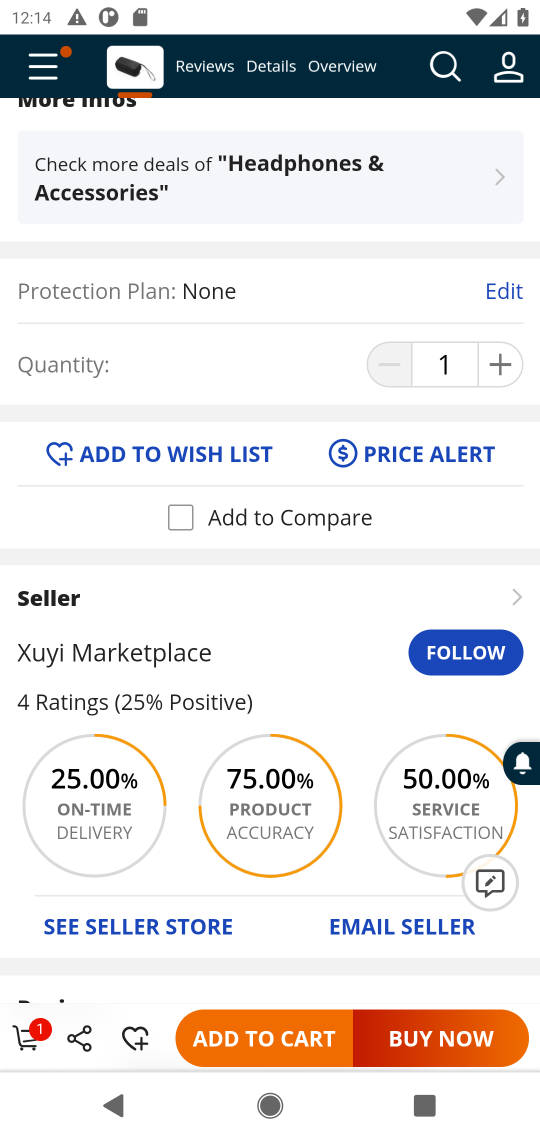
Step 45: drag from (294, 652) to (301, 975)
Your task to perform on an android device: Empty the shopping cart on newegg.com. Add "bose soundsport free" to the cart on newegg.com, then select checkout. Image 46: 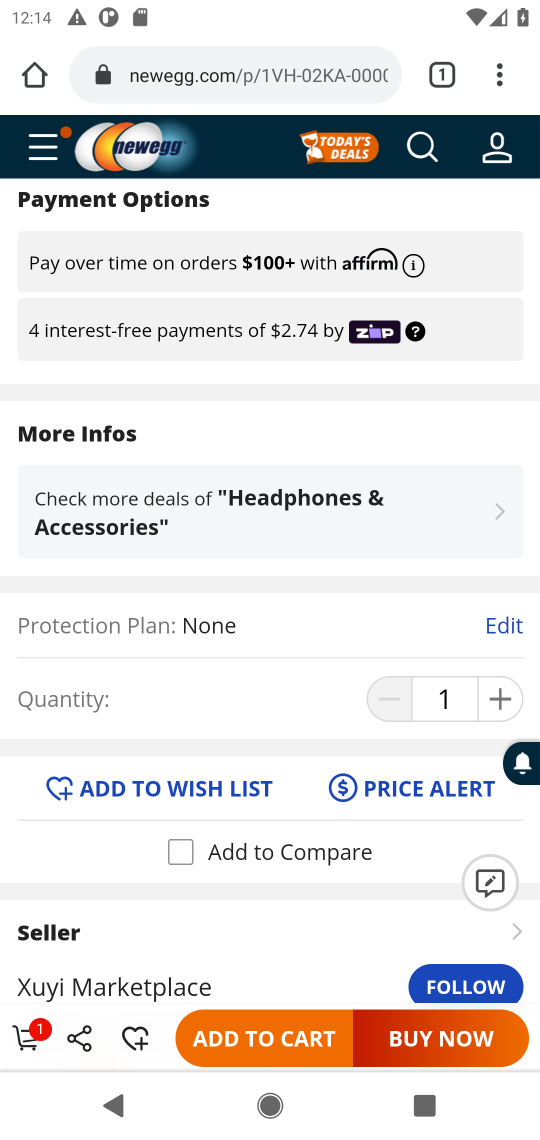
Step 46: click (22, 1040)
Your task to perform on an android device: Empty the shopping cart on newegg.com. Add "bose soundsport free" to the cart on newegg.com, then select checkout. Image 47: 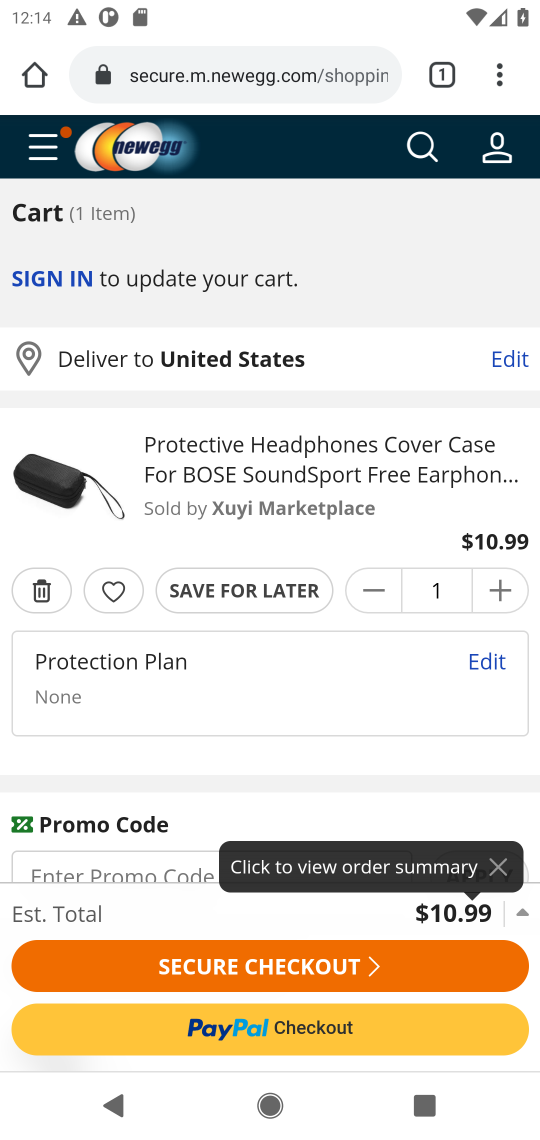
Step 47: click (294, 963)
Your task to perform on an android device: Empty the shopping cart on newegg.com. Add "bose soundsport free" to the cart on newegg.com, then select checkout. Image 48: 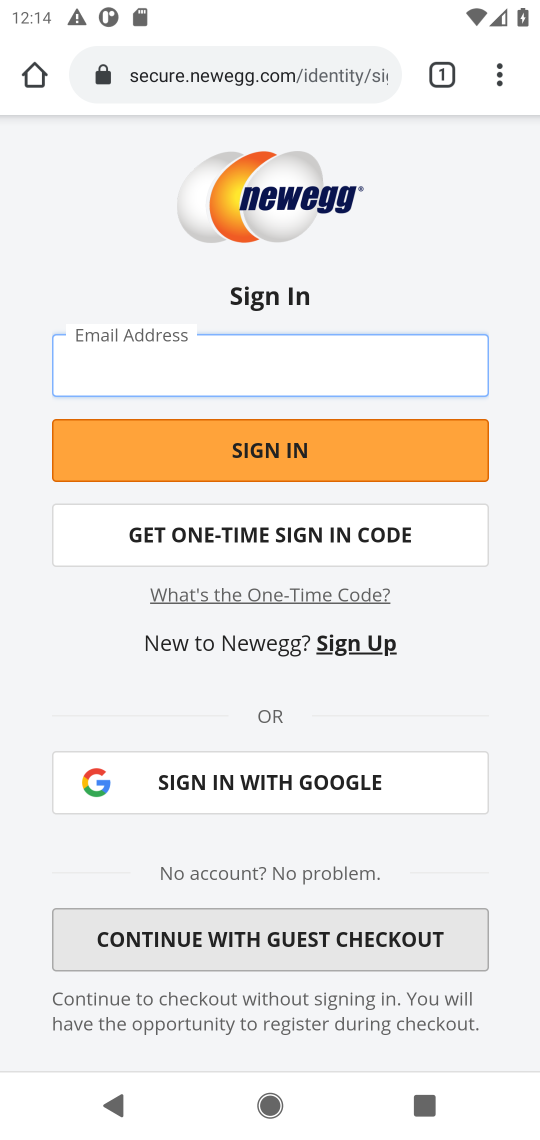
Step 48: task complete